Your task to perform on an android device: Turn off the flashlight Image 0: 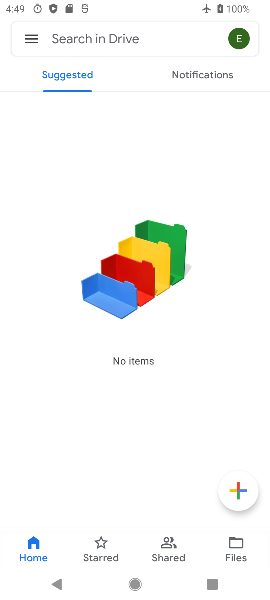
Step 0: press back button
Your task to perform on an android device: Turn off the flashlight Image 1: 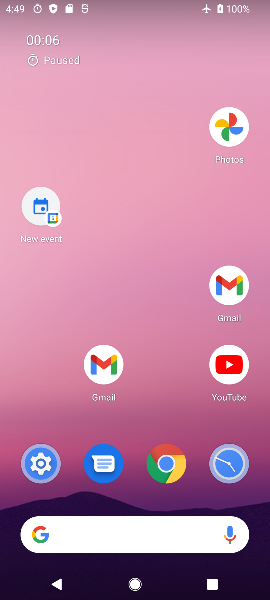
Step 1: task complete